Your task to perform on an android device: create a new album in the google photos Image 0: 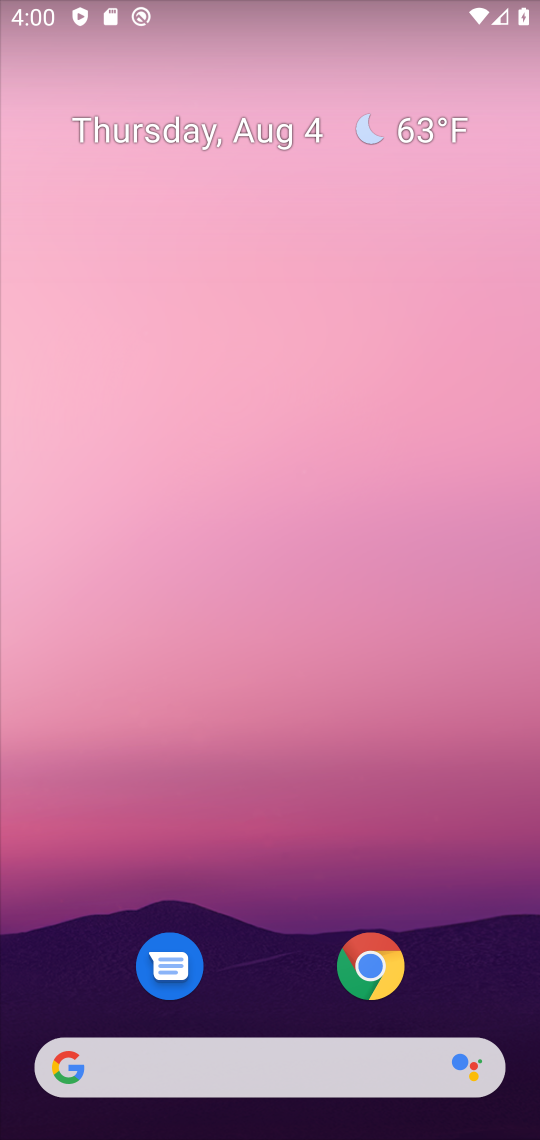
Step 0: drag from (272, 949) to (278, 55)
Your task to perform on an android device: create a new album in the google photos Image 1: 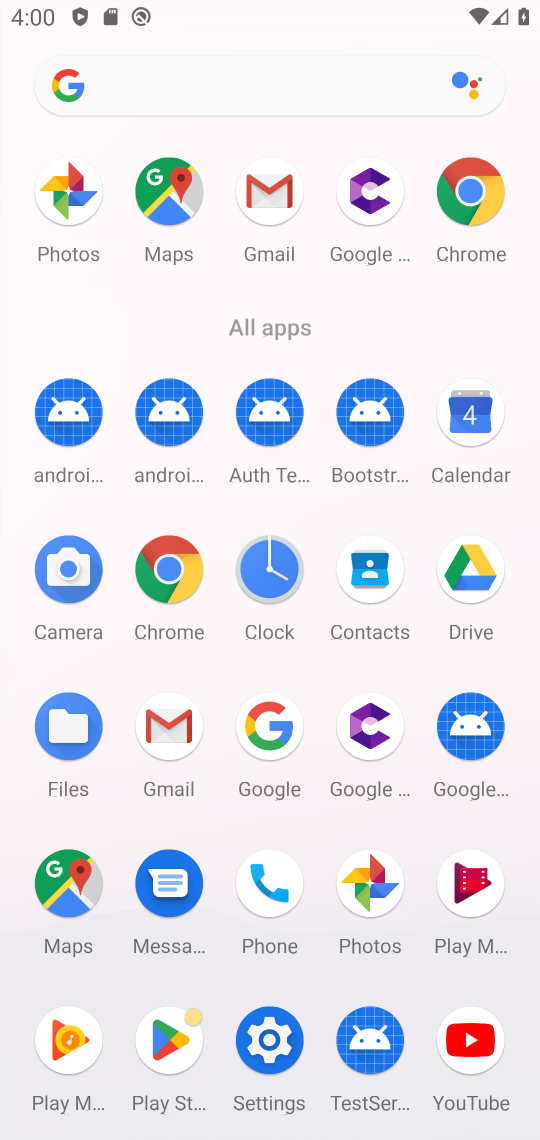
Step 1: click (74, 200)
Your task to perform on an android device: create a new album in the google photos Image 2: 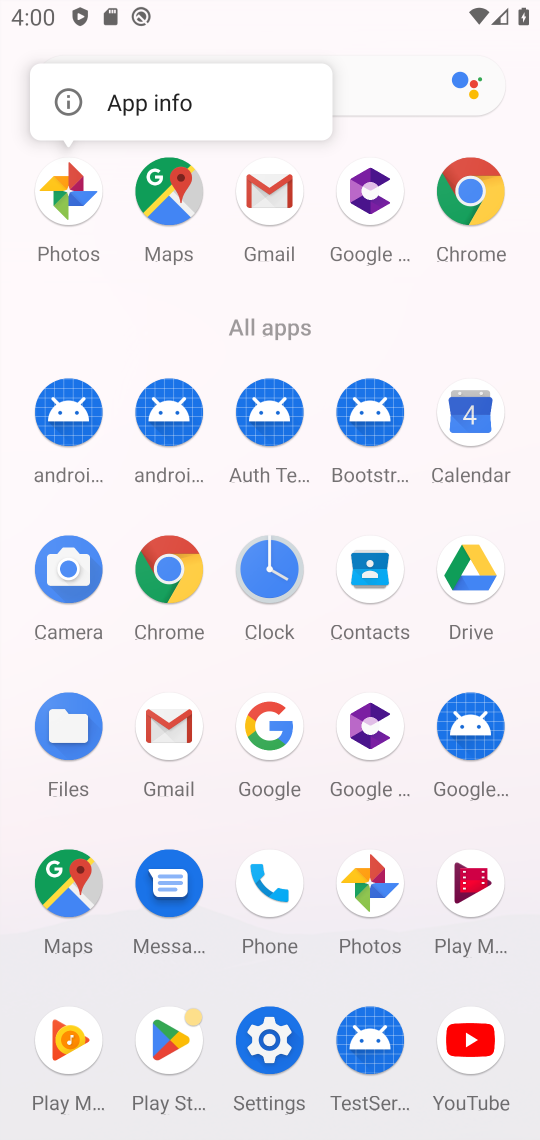
Step 2: click (77, 203)
Your task to perform on an android device: create a new album in the google photos Image 3: 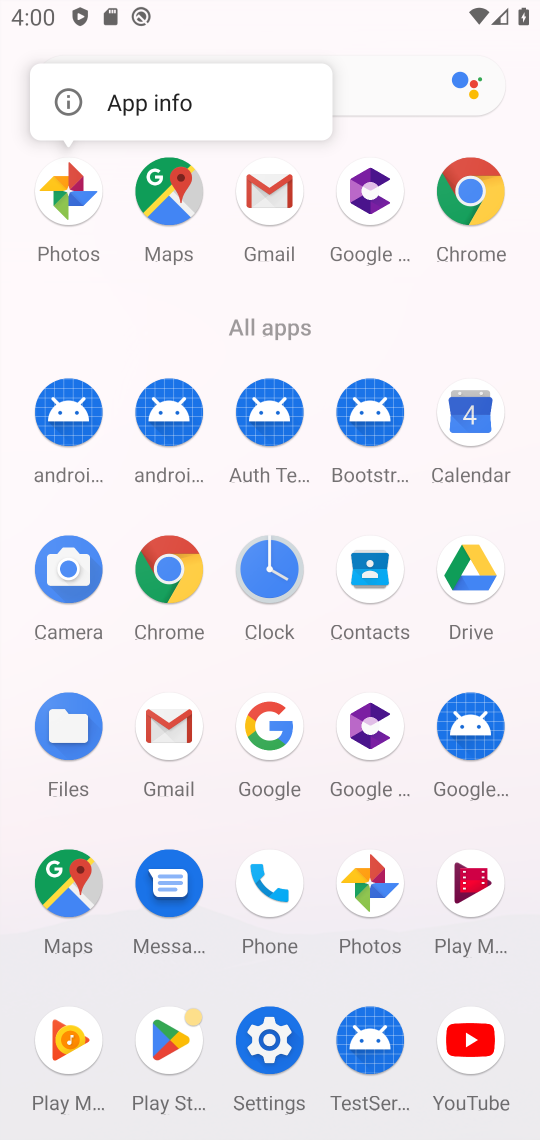
Step 3: click (77, 200)
Your task to perform on an android device: create a new album in the google photos Image 4: 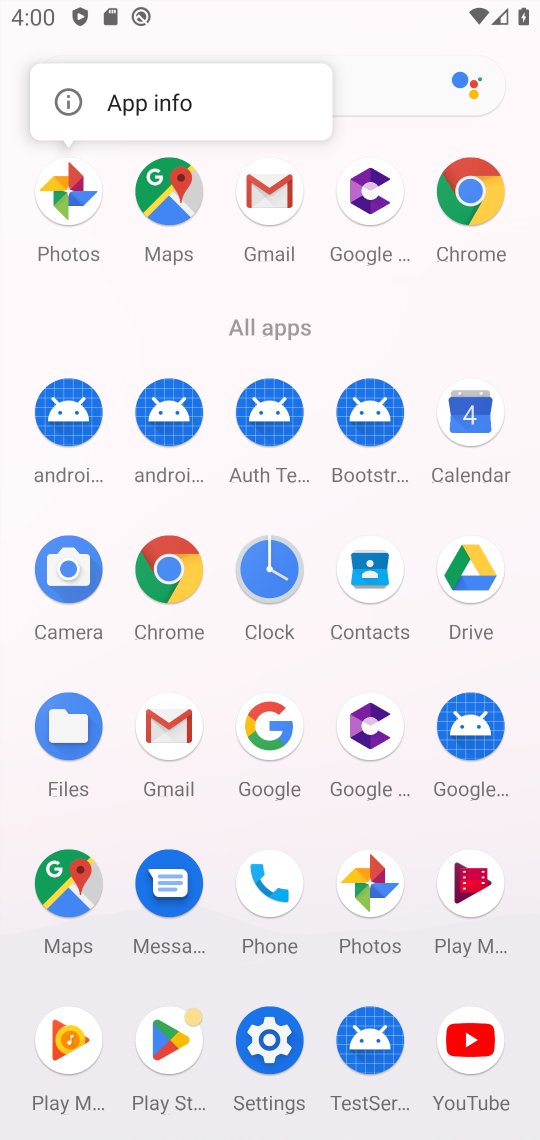
Step 4: click (77, 200)
Your task to perform on an android device: create a new album in the google photos Image 5: 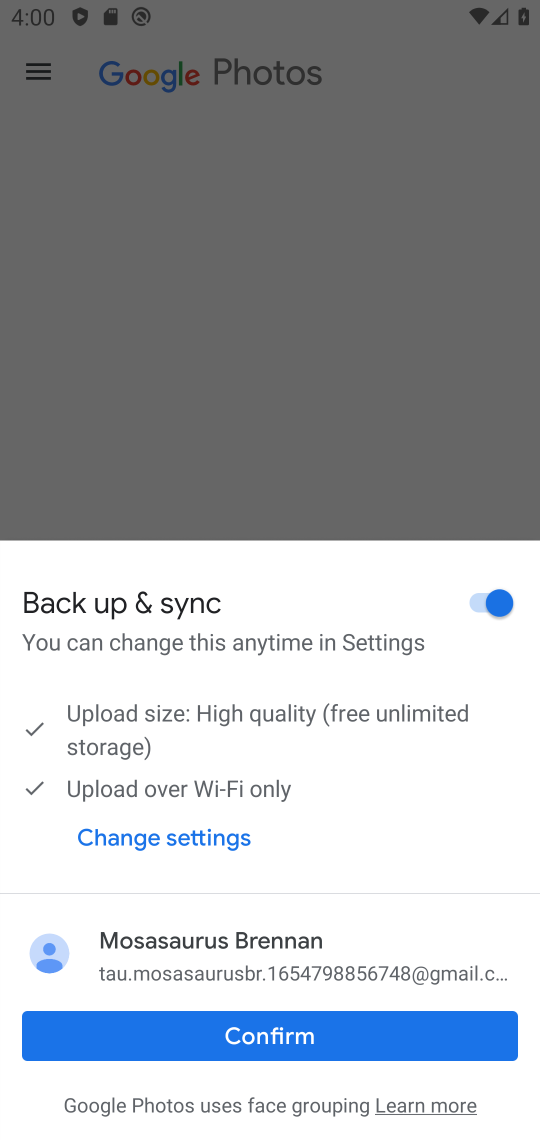
Step 5: click (264, 1028)
Your task to perform on an android device: create a new album in the google photos Image 6: 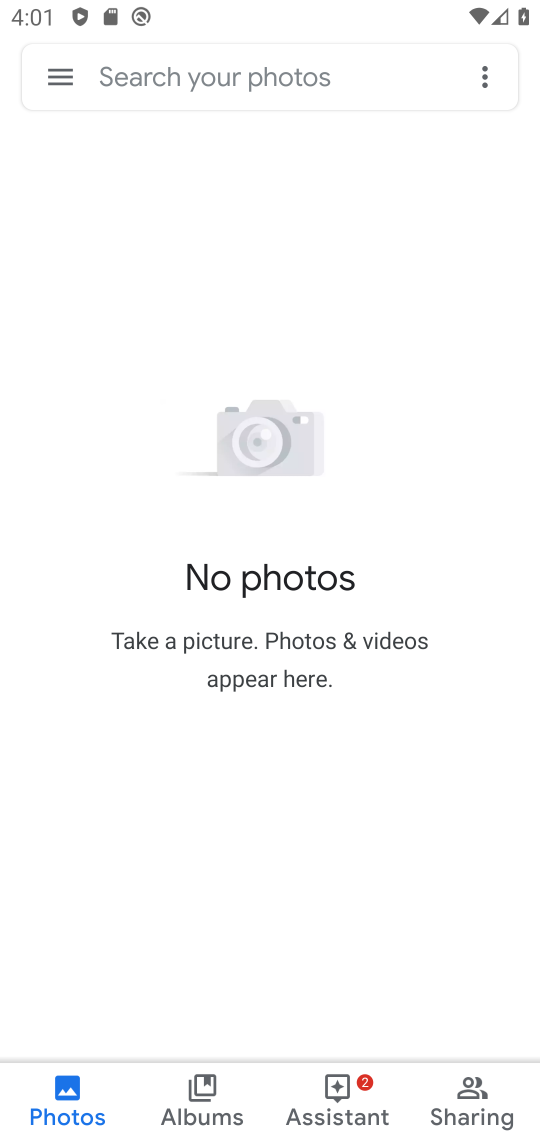
Step 6: click (183, 1092)
Your task to perform on an android device: create a new album in the google photos Image 7: 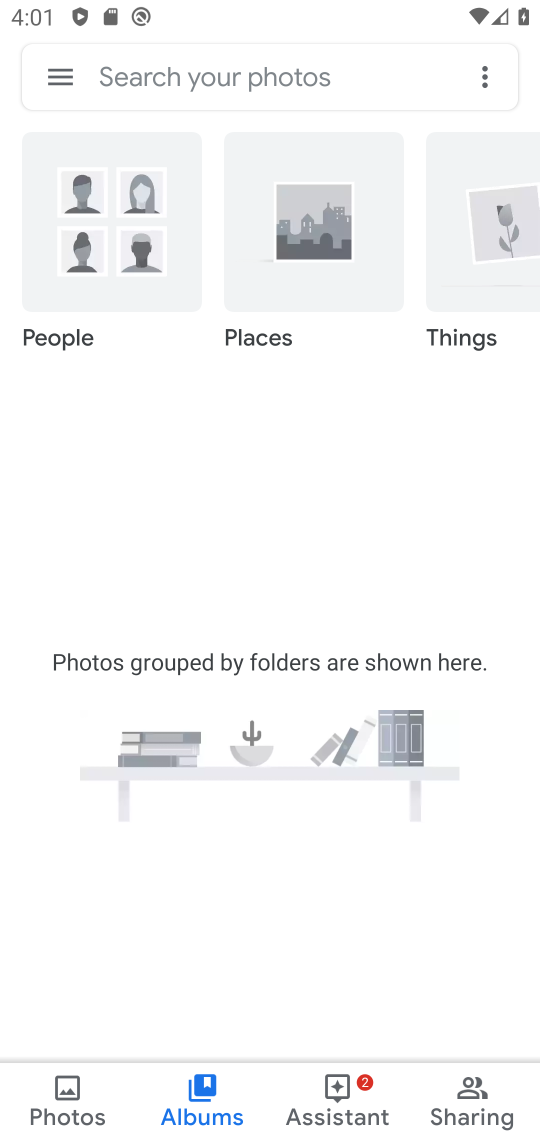
Step 7: task complete